Your task to perform on an android device: Search for seafood restaurants on Google Maps Image 0: 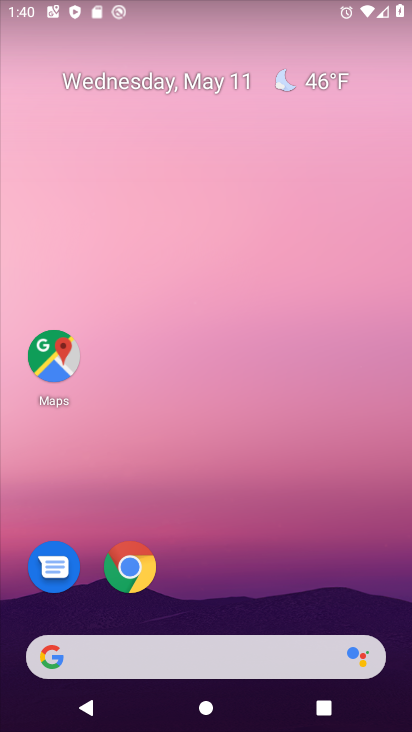
Step 0: click (42, 356)
Your task to perform on an android device: Search for seafood restaurants on Google Maps Image 1: 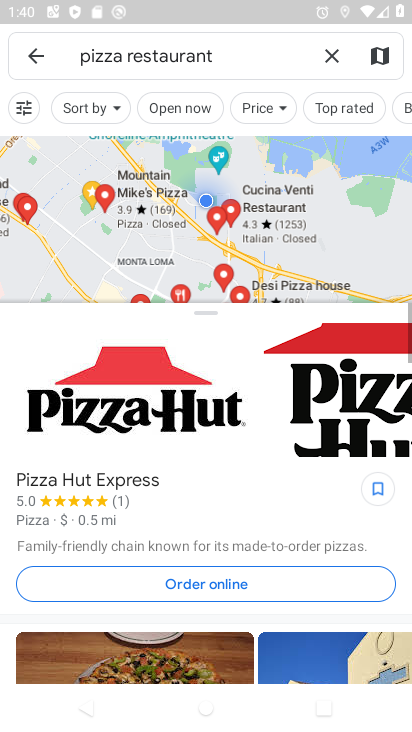
Step 1: click (329, 58)
Your task to perform on an android device: Search for seafood restaurants on Google Maps Image 2: 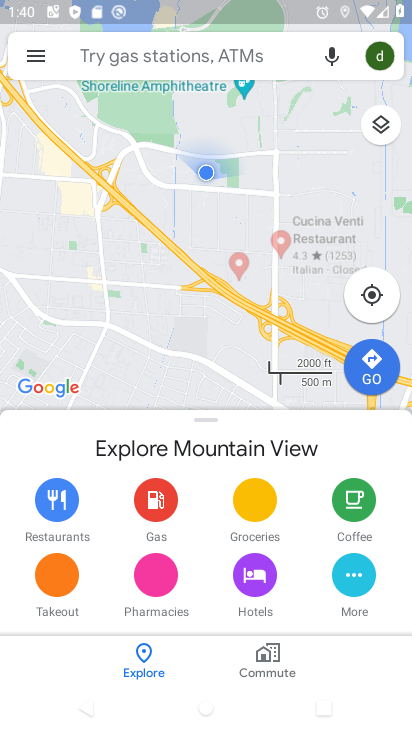
Step 2: click (100, 61)
Your task to perform on an android device: Search for seafood restaurants on Google Maps Image 3: 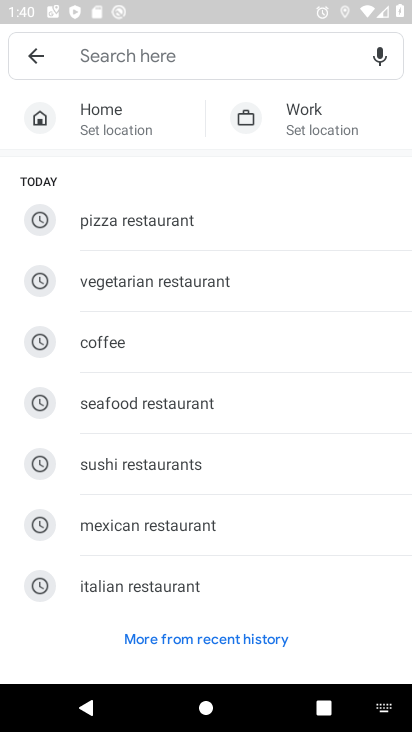
Step 3: click (120, 395)
Your task to perform on an android device: Search for seafood restaurants on Google Maps Image 4: 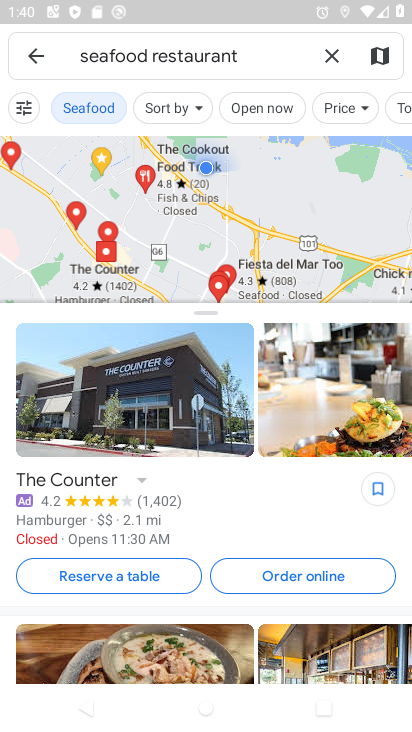
Step 4: task complete